Your task to perform on an android device: check android version Image 0: 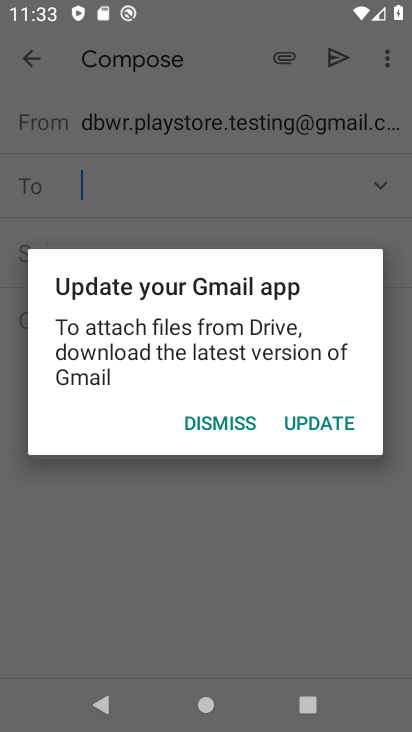
Step 0: press home button
Your task to perform on an android device: check android version Image 1: 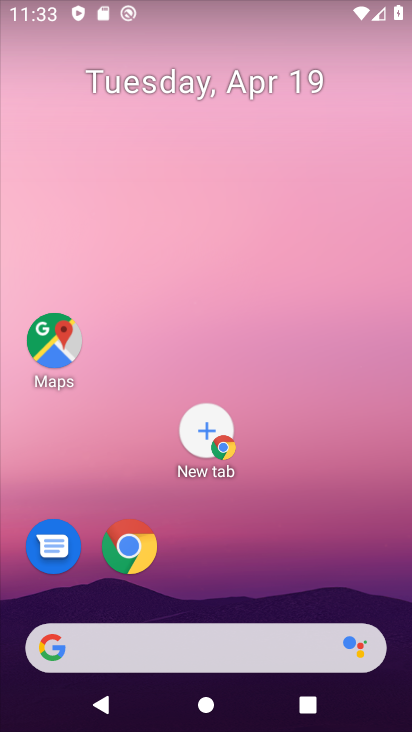
Step 1: drag from (307, 13) to (219, 636)
Your task to perform on an android device: check android version Image 2: 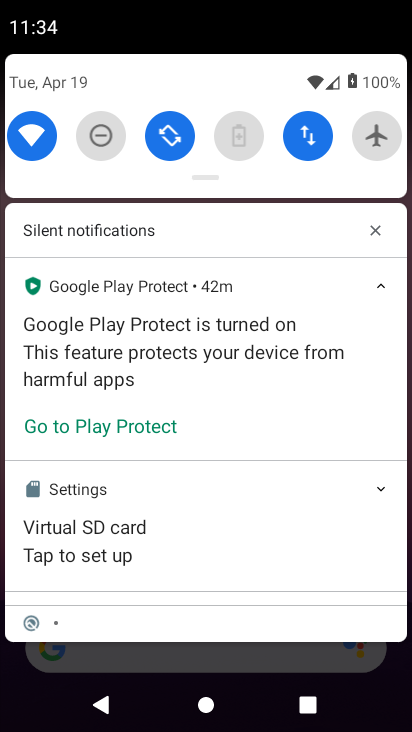
Step 2: click (49, 163)
Your task to perform on an android device: check android version Image 3: 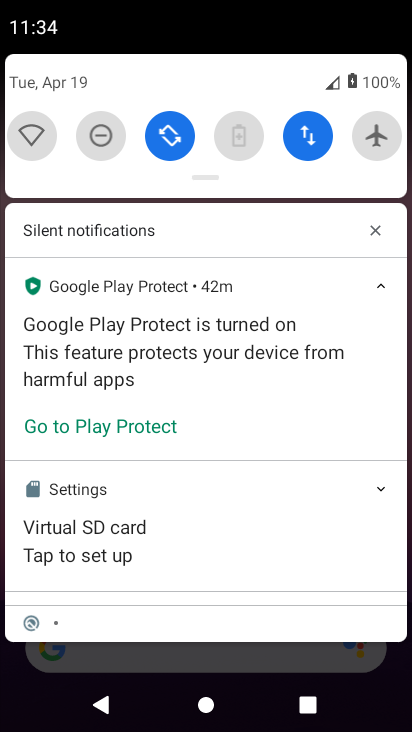
Step 3: drag from (213, 73) to (317, 694)
Your task to perform on an android device: check android version Image 4: 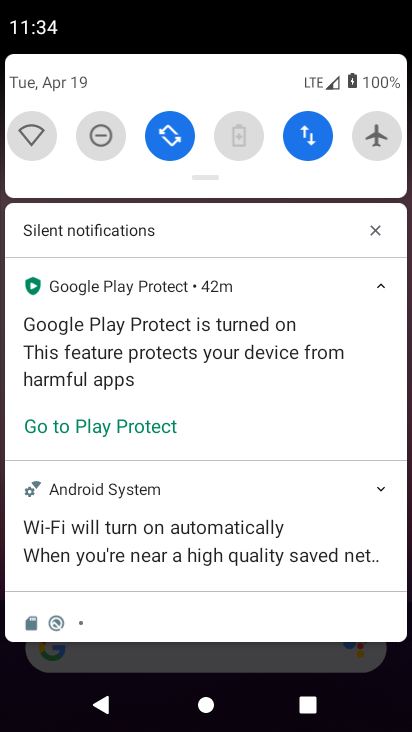
Step 4: drag from (220, 107) to (318, 727)
Your task to perform on an android device: check android version Image 5: 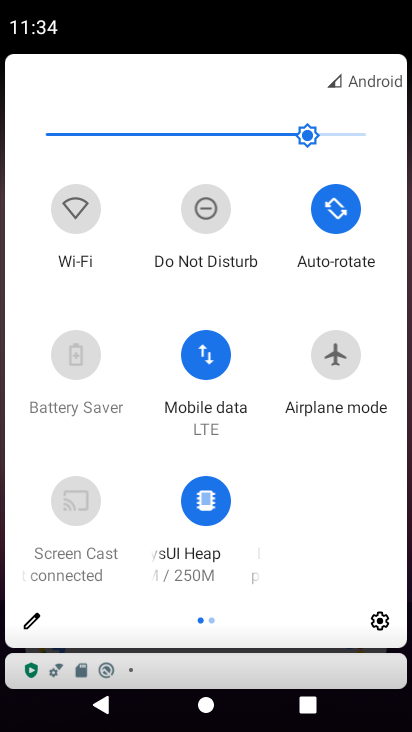
Step 5: click (385, 619)
Your task to perform on an android device: check android version Image 6: 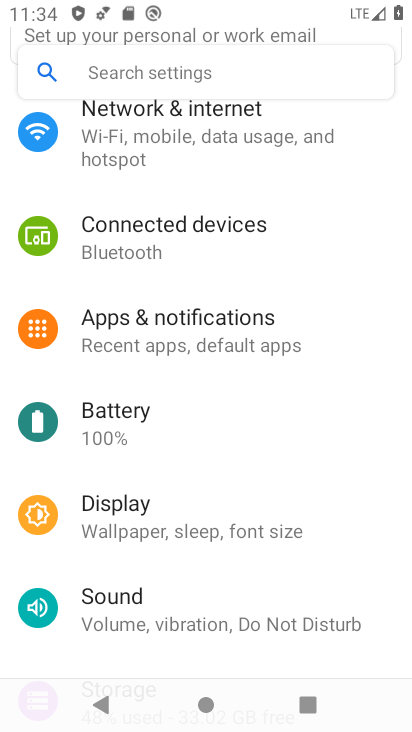
Step 6: drag from (162, 586) to (156, 143)
Your task to perform on an android device: check android version Image 7: 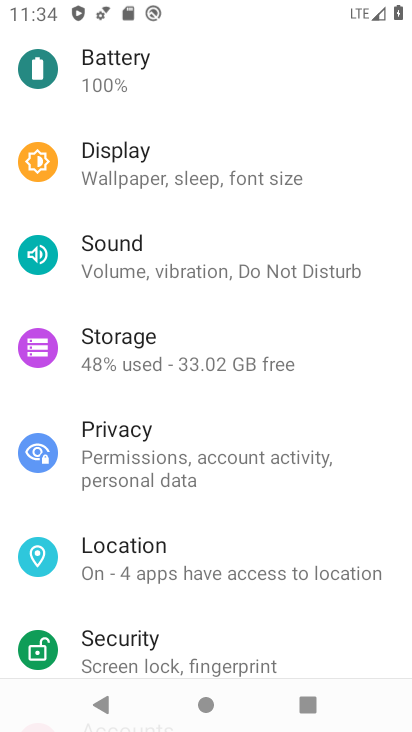
Step 7: drag from (207, 643) to (235, 160)
Your task to perform on an android device: check android version Image 8: 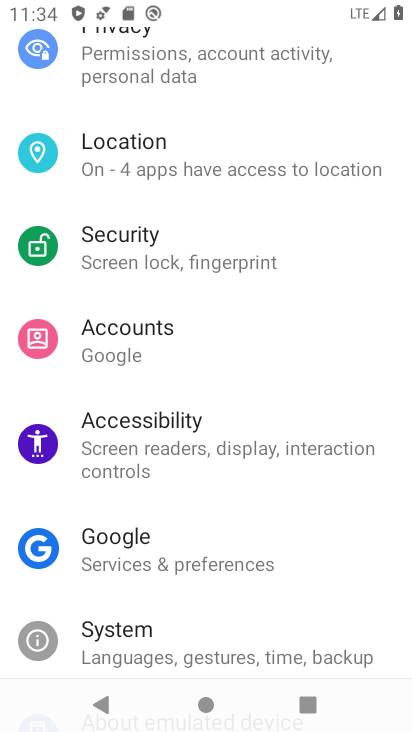
Step 8: drag from (165, 584) to (227, 32)
Your task to perform on an android device: check android version Image 9: 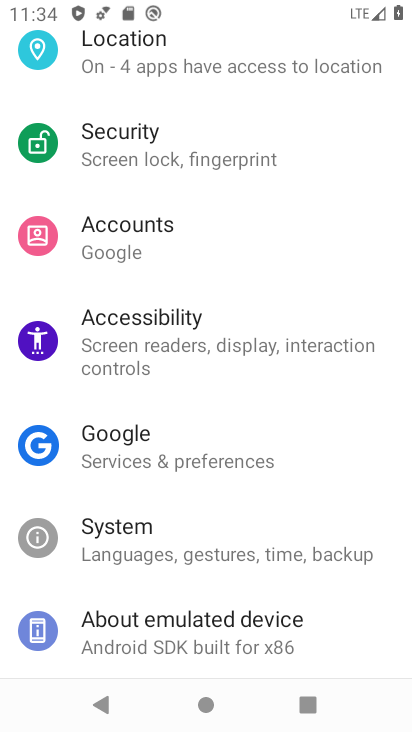
Step 9: click (183, 624)
Your task to perform on an android device: check android version Image 10: 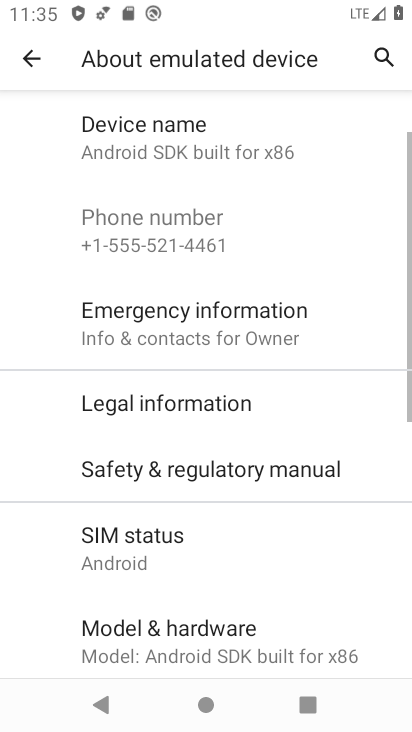
Step 10: drag from (136, 634) to (166, 74)
Your task to perform on an android device: check android version Image 11: 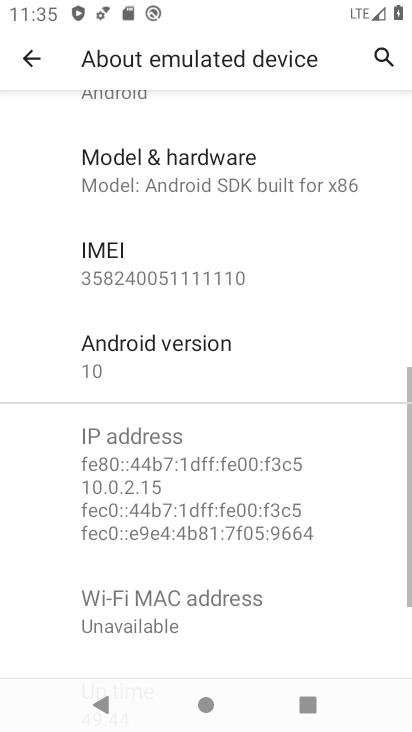
Step 11: click (180, 351)
Your task to perform on an android device: check android version Image 12: 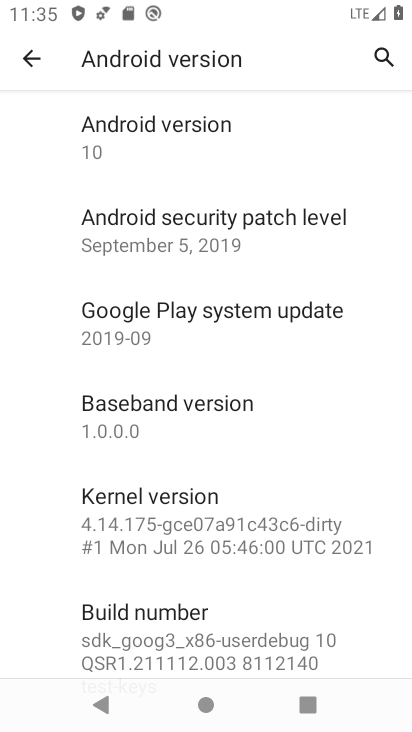
Step 12: task complete